Your task to perform on an android device: Add "razer kraken" to the cart on bestbuy.com, then select checkout. Image 0: 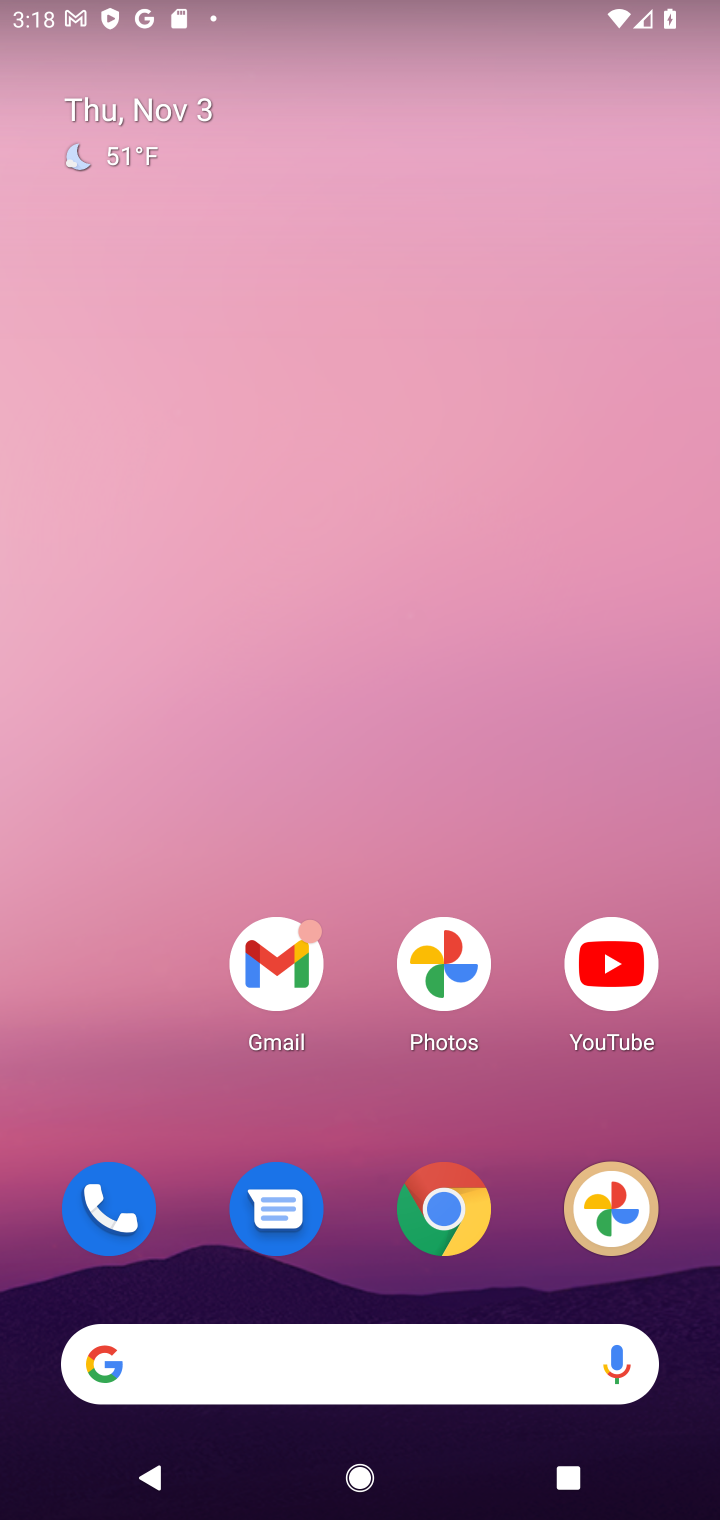
Step 0: click (461, 1220)
Your task to perform on an android device: Add "razer kraken" to the cart on bestbuy.com, then select checkout. Image 1: 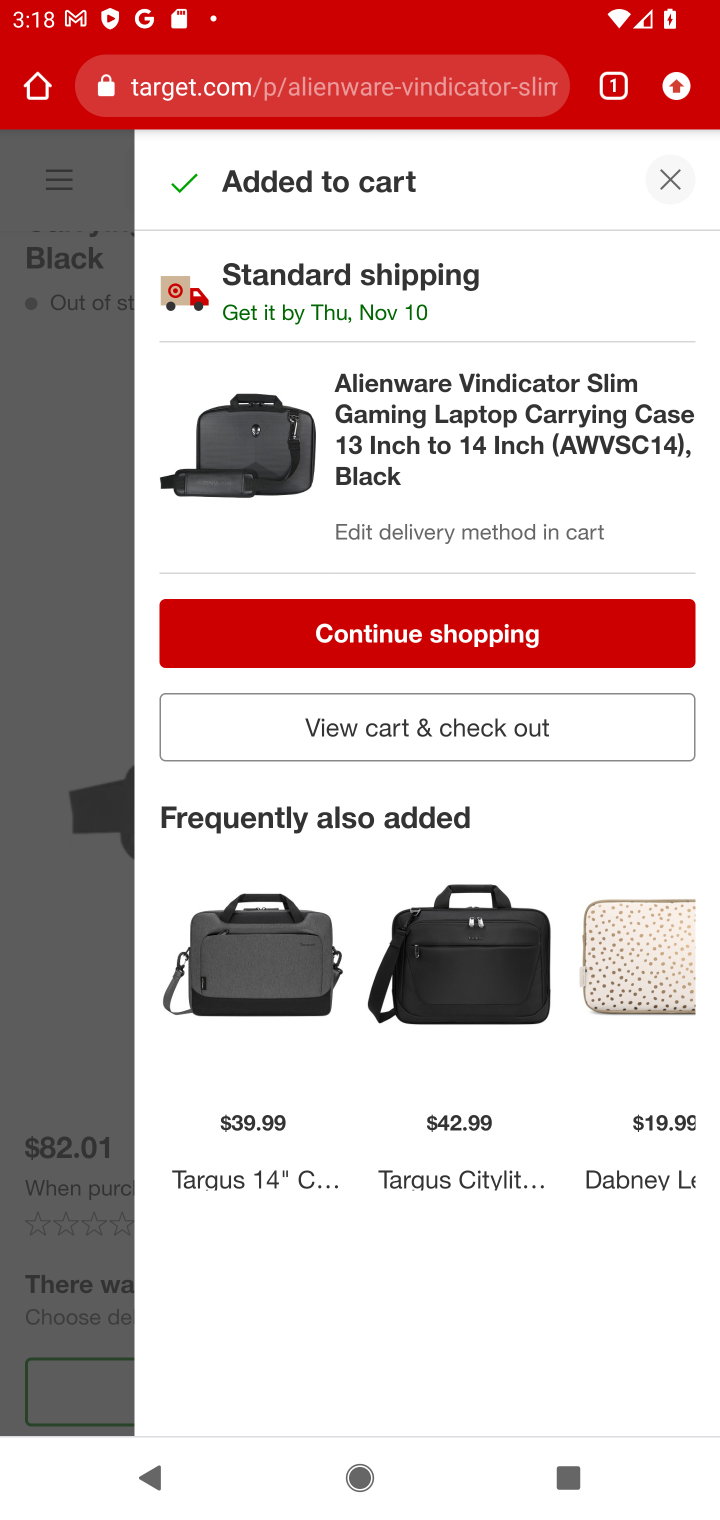
Step 1: click (281, 88)
Your task to perform on an android device: Add "razer kraken" to the cart on bestbuy.com, then select checkout. Image 2: 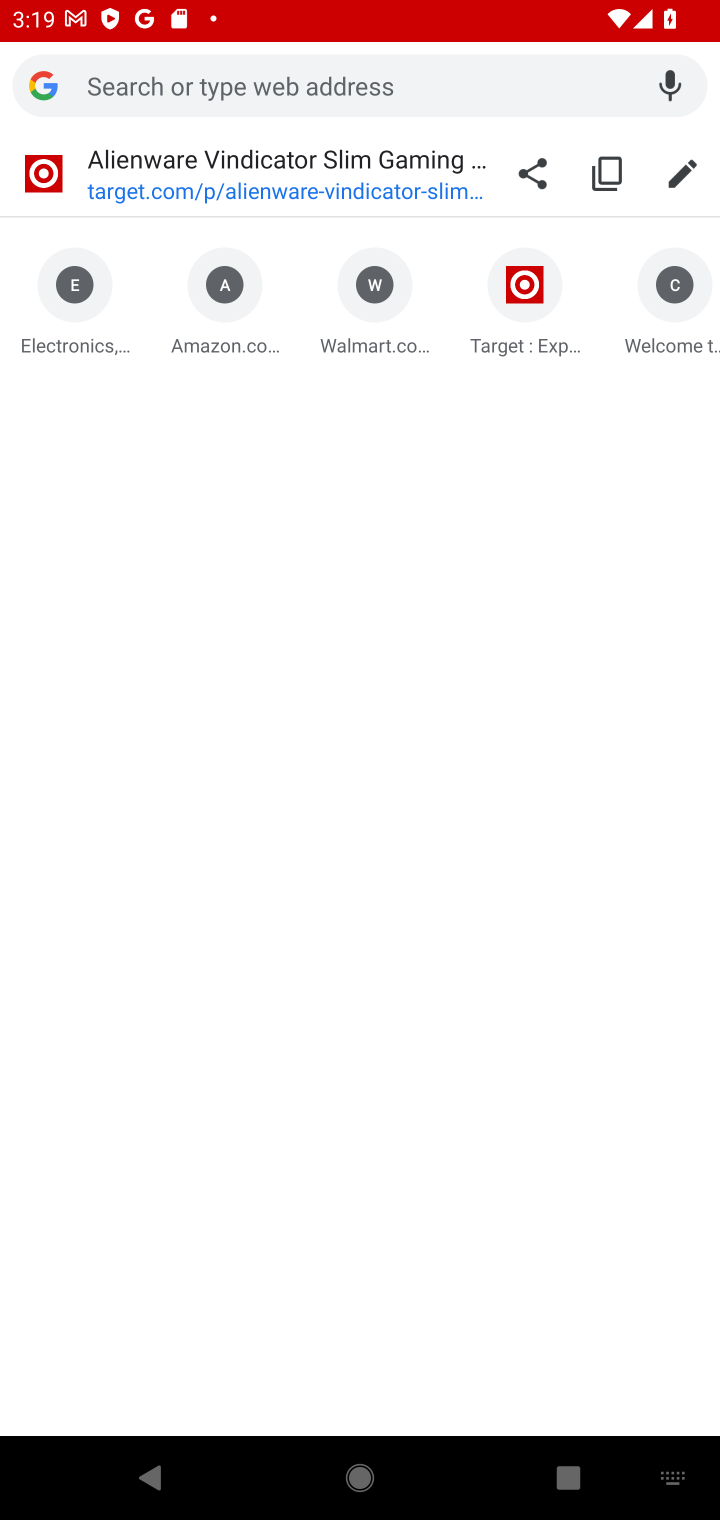
Step 2: type "bestbuy.com"
Your task to perform on an android device: Add "razer kraken" to the cart on bestbuy.com, then select checkout. Image 3: 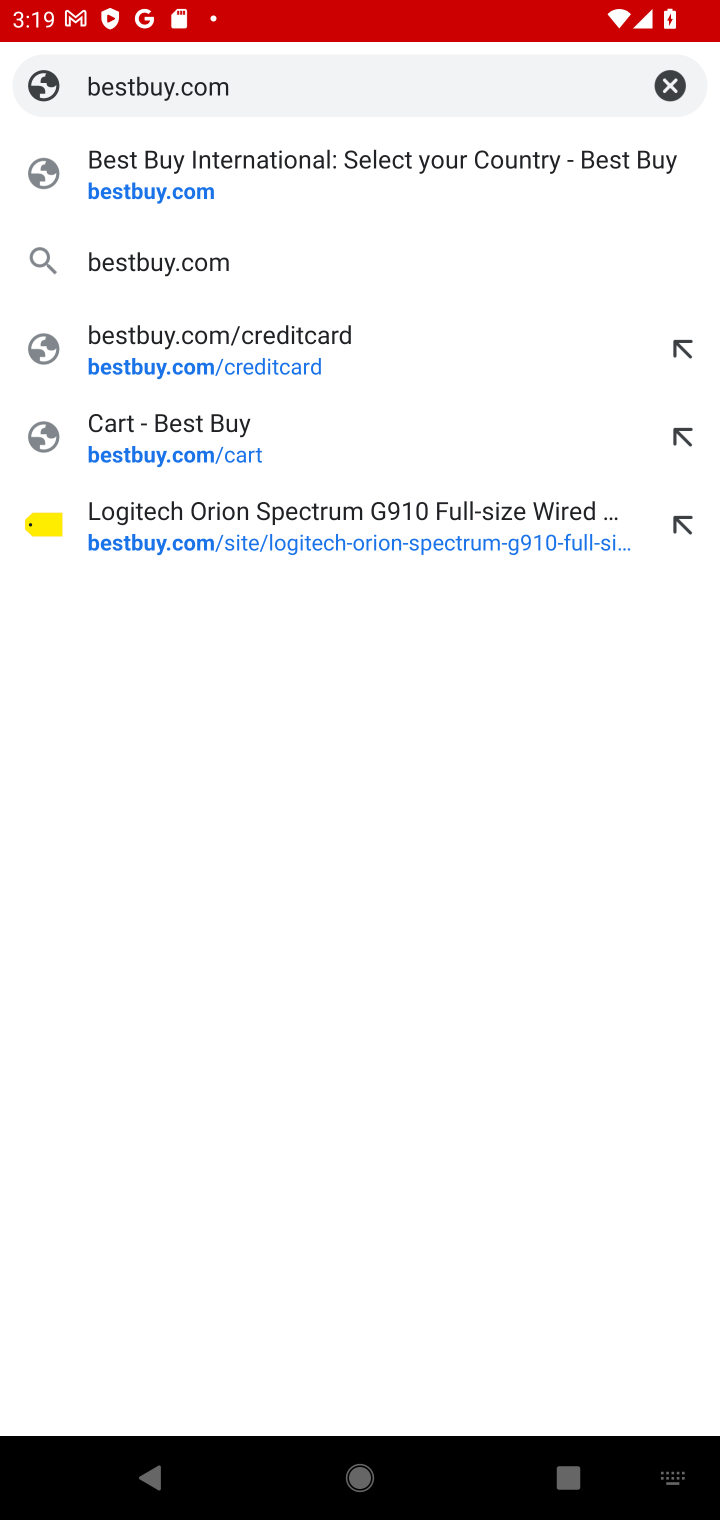
Step 3: click (210, 197)
Your task to perform on an android device: Add "razer kraken" to the cart on bestbuy.com, then select checkout. Image 4: 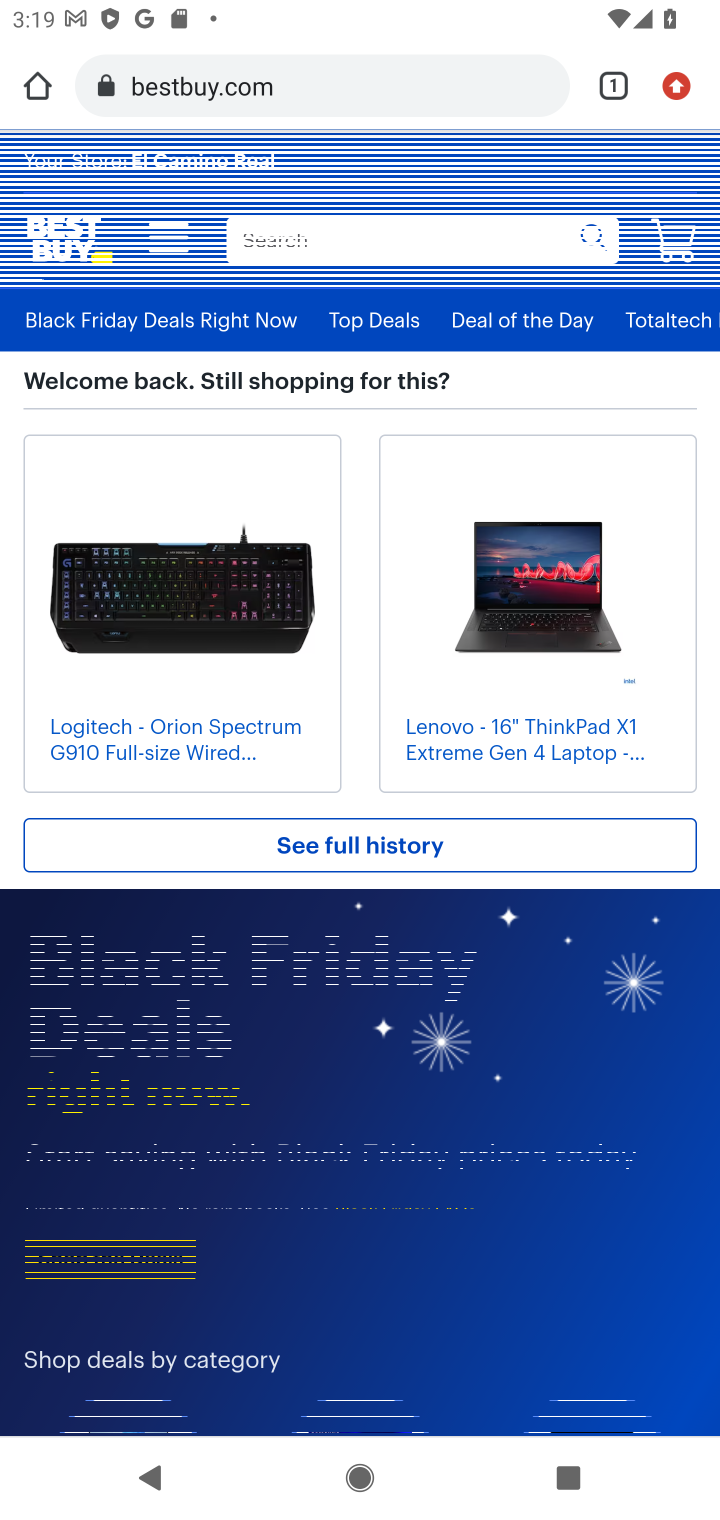
Step 4: click (305, 230)
Your task to perform on an android device: Add "razer kraken" to the cart on bestbuy.com, then select checkout. Image 5: 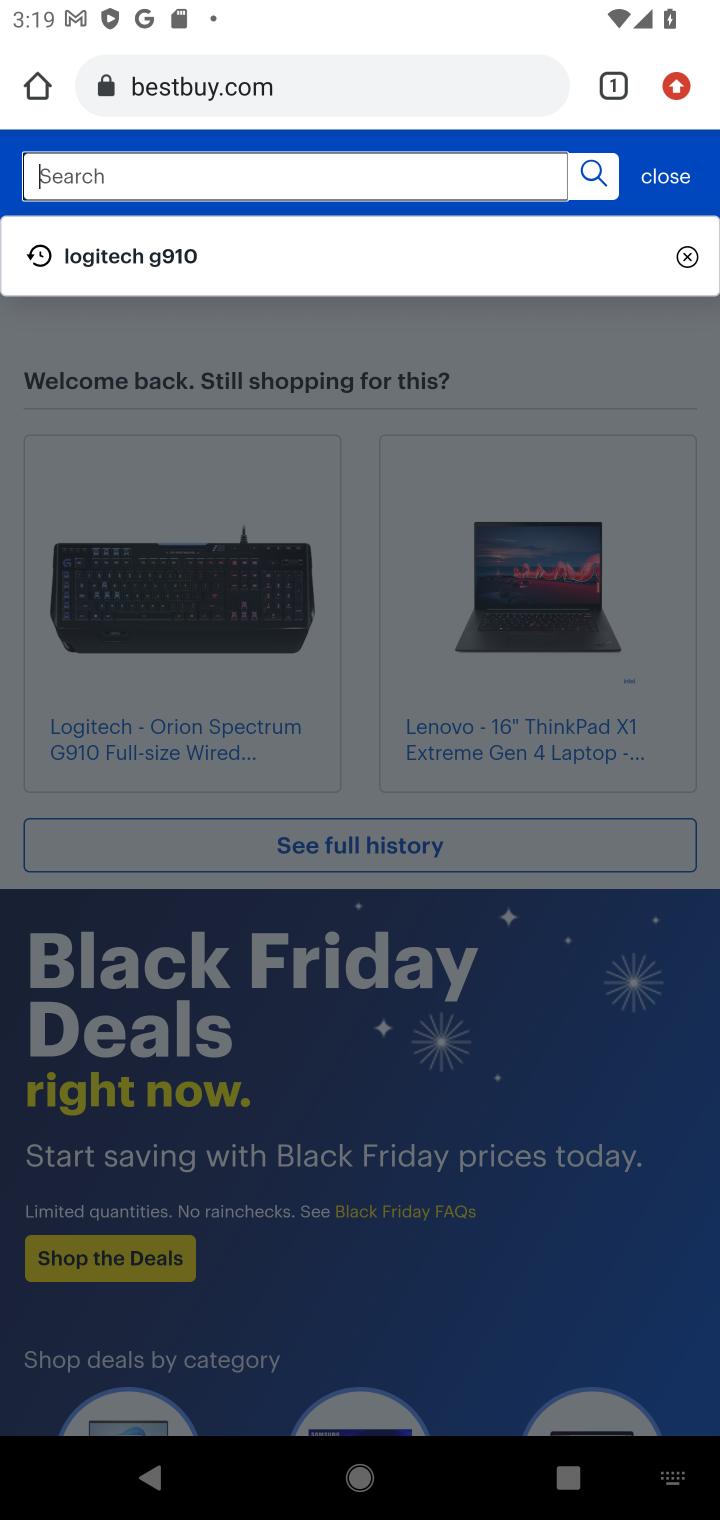
Step 5: type "razer kraken"
Your task to perform on an android device: Add "razer kraken" to the cart on bestbuy.com, then select checkout. Image 6: 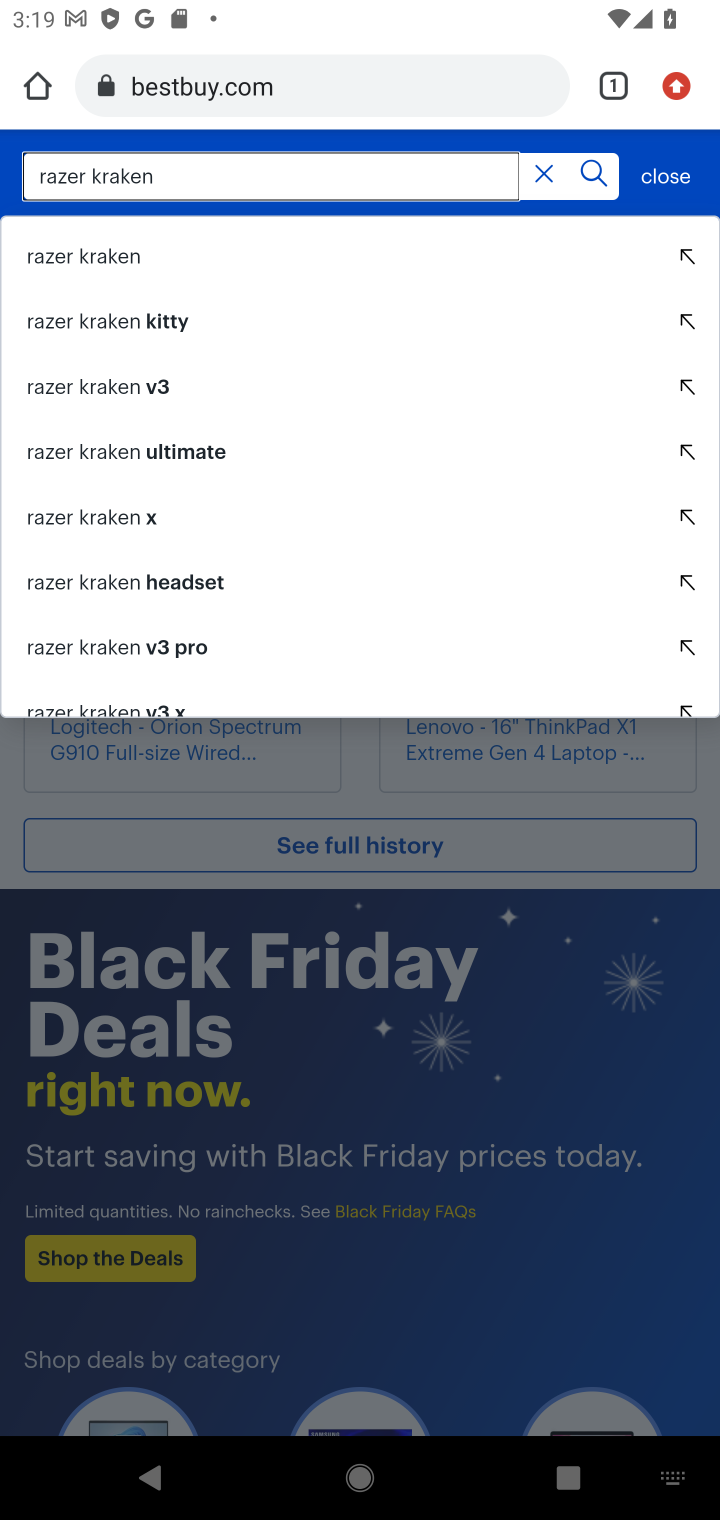
Step 6: press enter
Your task to perform on an android device: Add "razer kraken" to the cart on bestbuy.com, then select checkout. Image 7: 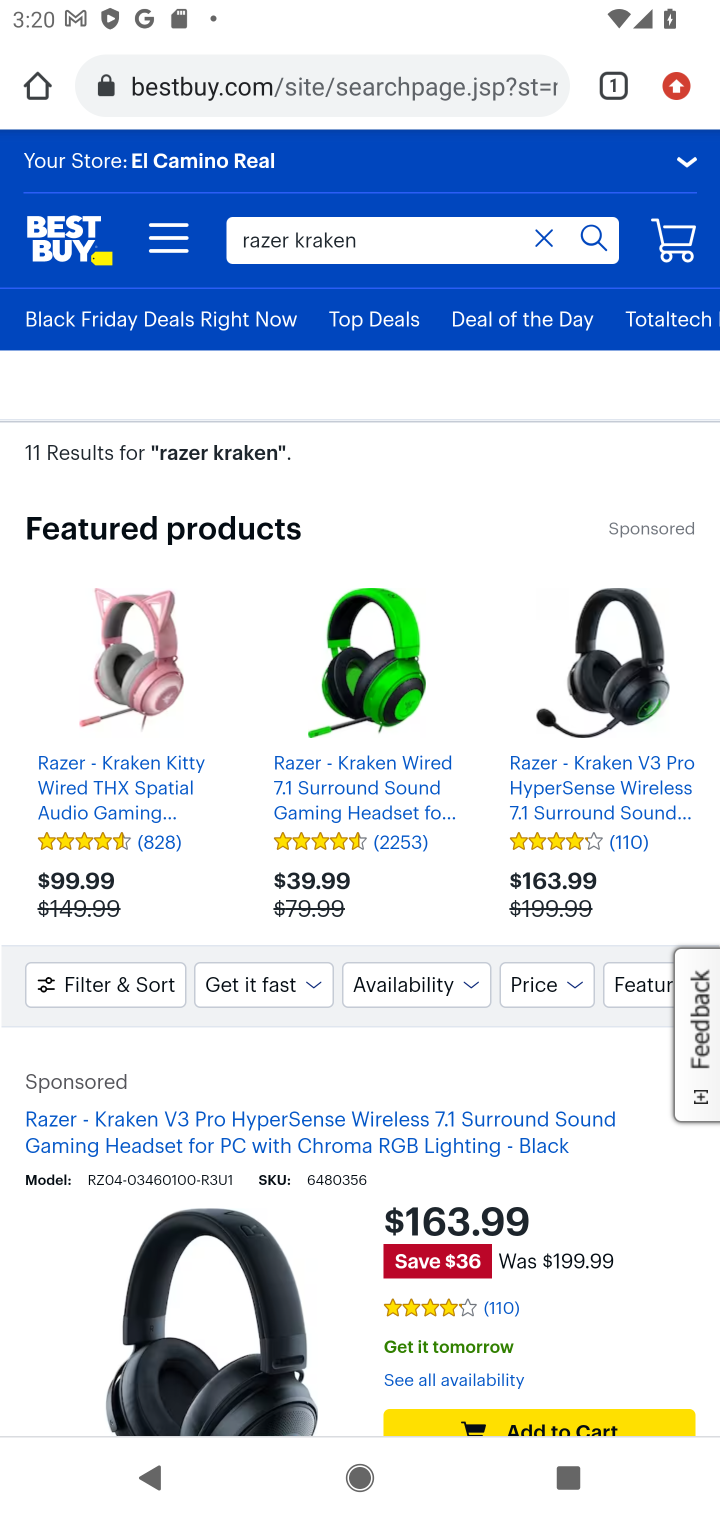
Step 7: click (219, 1276)
Your task to perform on an android device: Add "razer kraken" to the cart on bestbuy.com, then select checkout. Image 8: 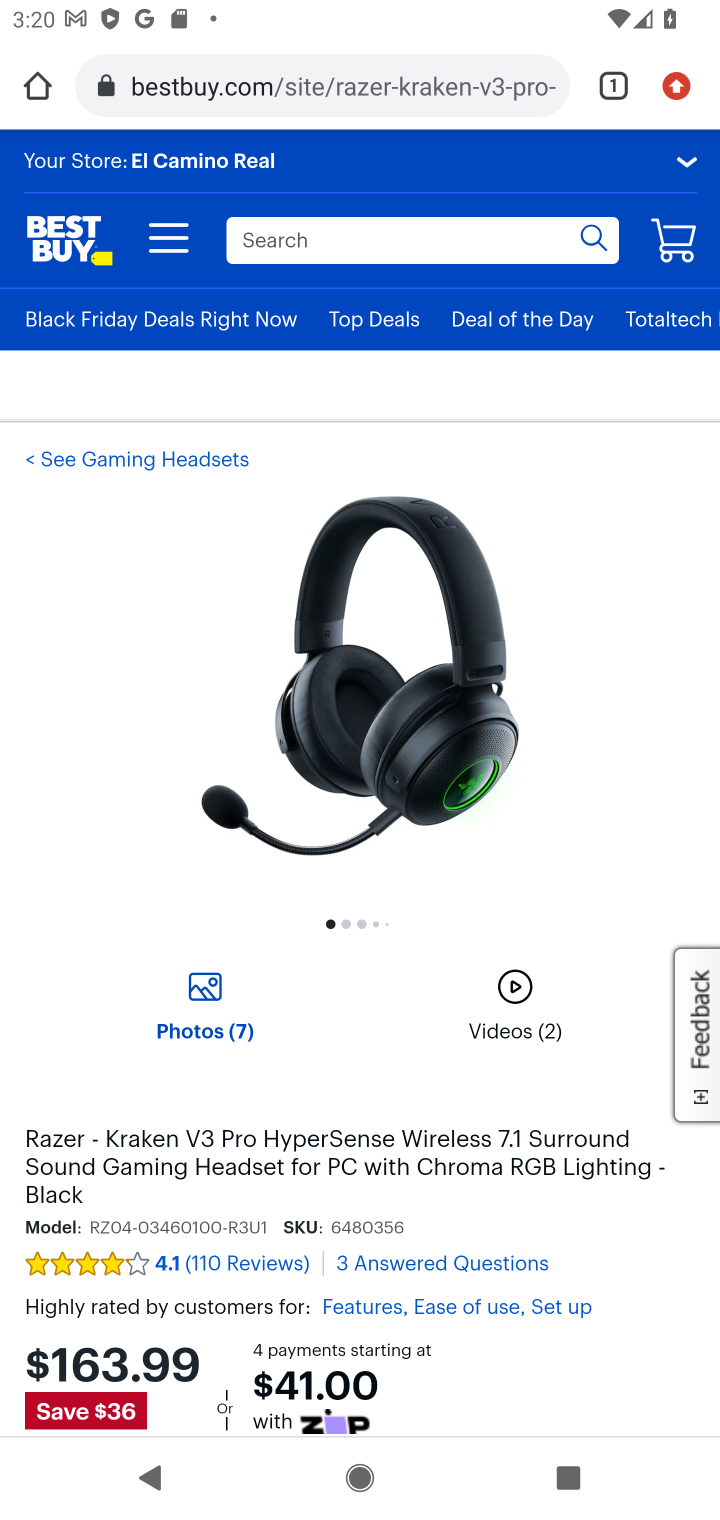
Step 8: drag from (418, 1301) to (343, 572)
Your task to perform on an android device: Add "razer kraken" to the cart on bestbuy.com, then select checkout. Image 9: 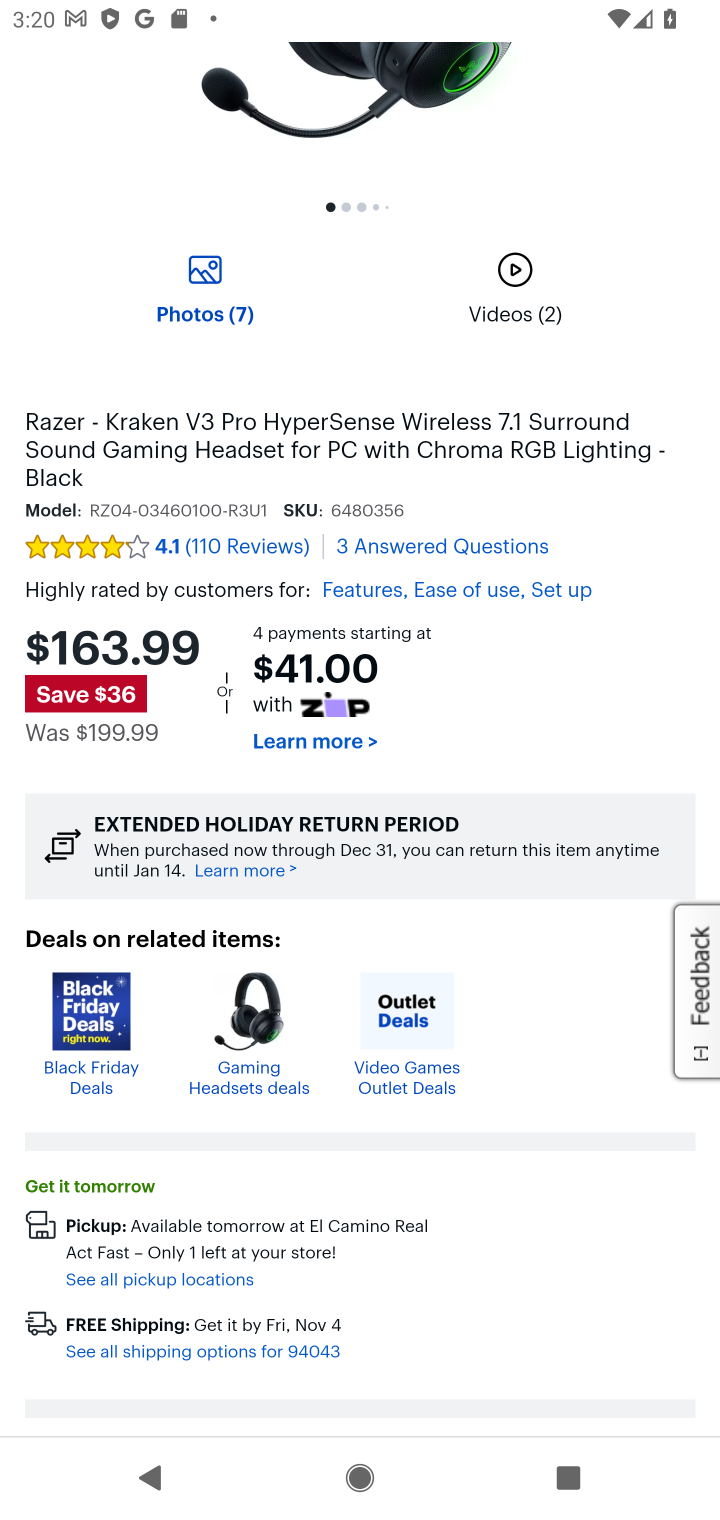
Step 9: drag from (401, 1235) to (416, 707)
Your task to perform on an android device: Add "razer kraken" to the cart on bestbuy.com, then select checkout. Image 10: 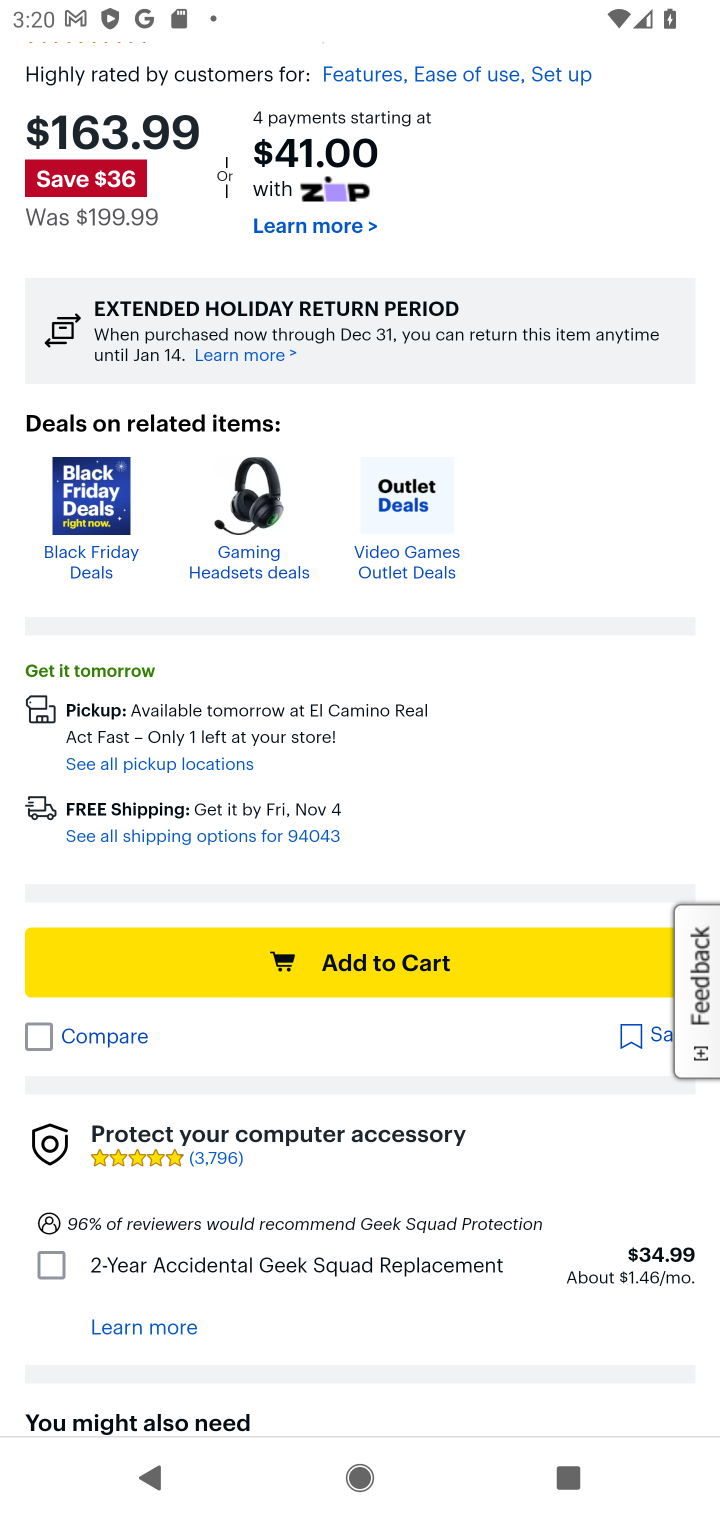
Step 10: click (462, 975)
Your task to perform on an android device: Add "razer kraken" to the cart on bestbuy.com, then select checkout. Image 11: 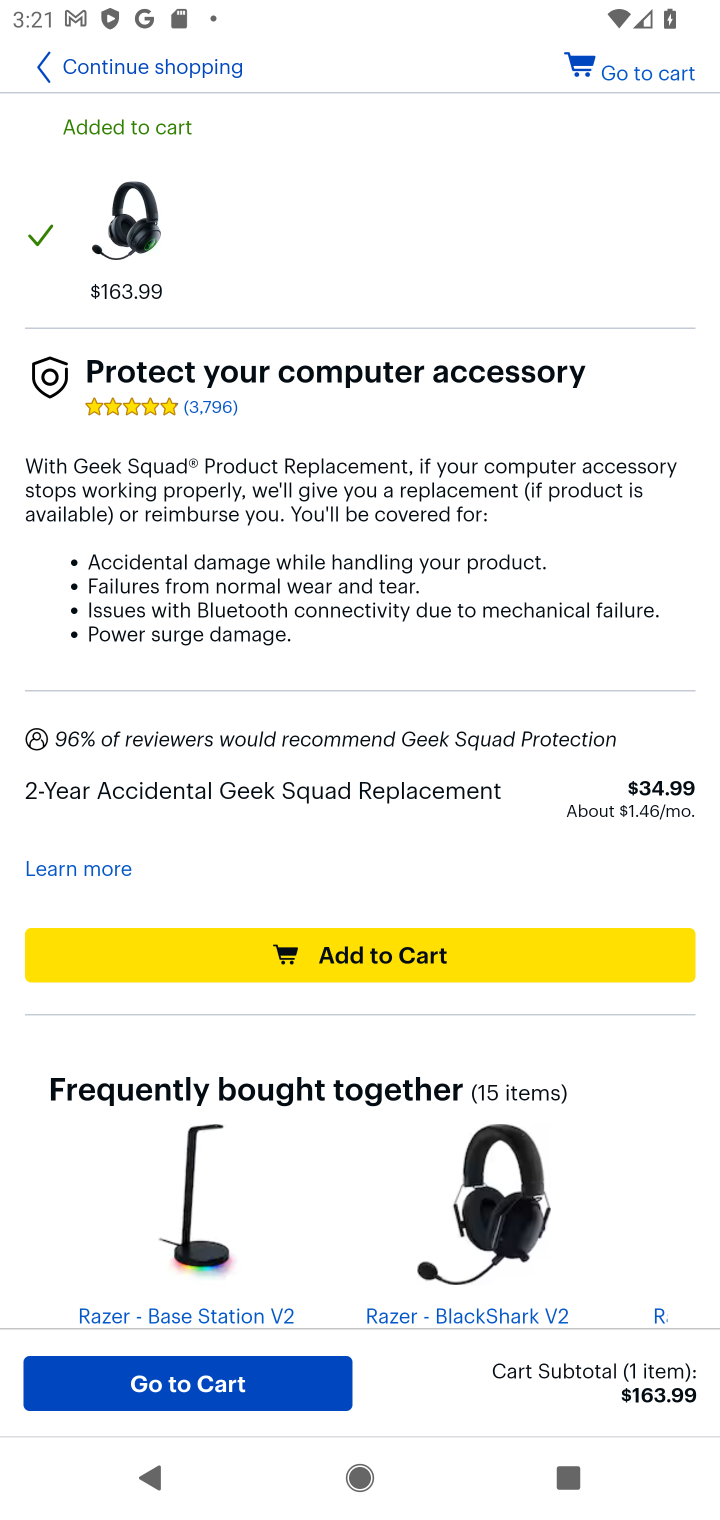
Step 11: drag from (629, 194) to (529, 1103)
Your task to perform on an android device: Add "razer kraken" to the cart on bestbuy.com, then select checkout. Image 12: 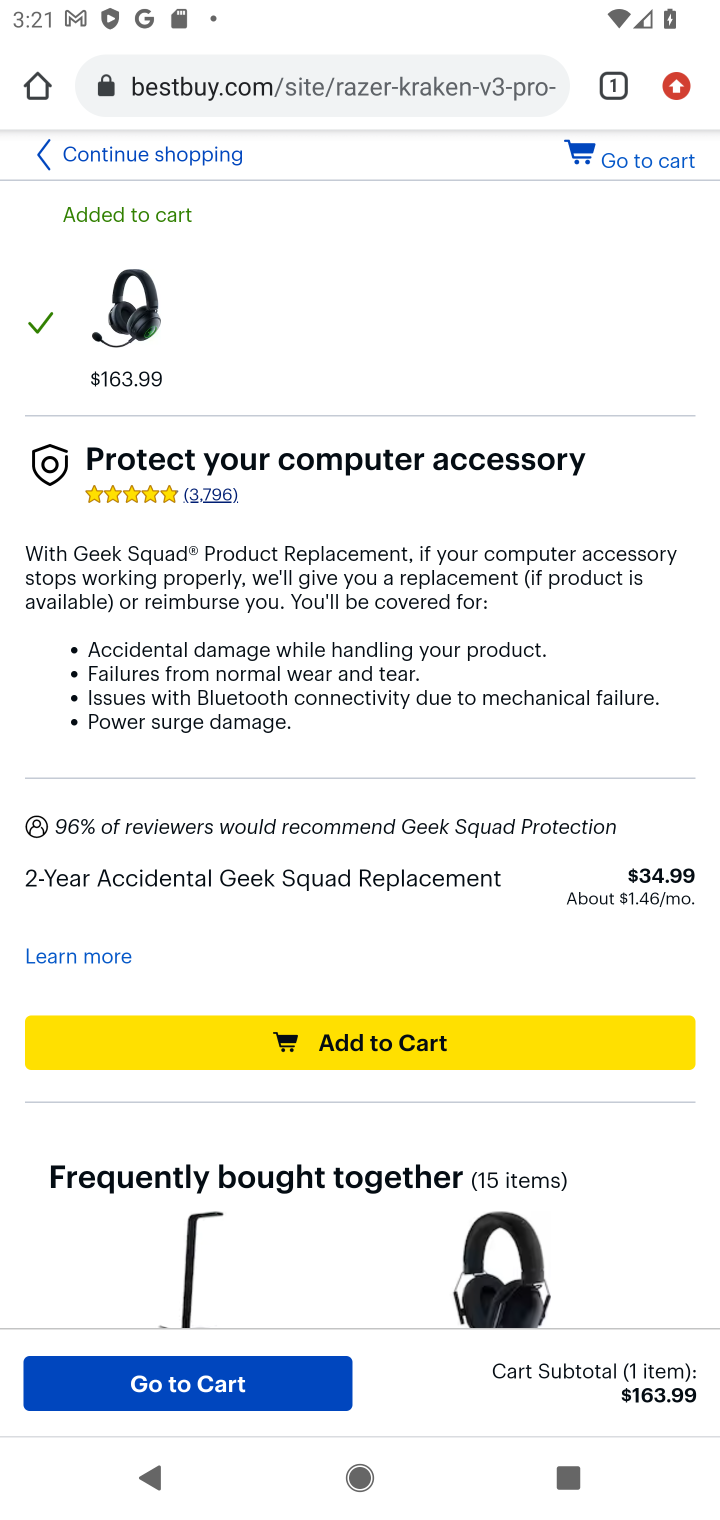
Step 12: click (634, 163)
Your task to perform on an android device: Add "razer kraken" to the cart on bestbuy.com, then select checkout. Image 13: 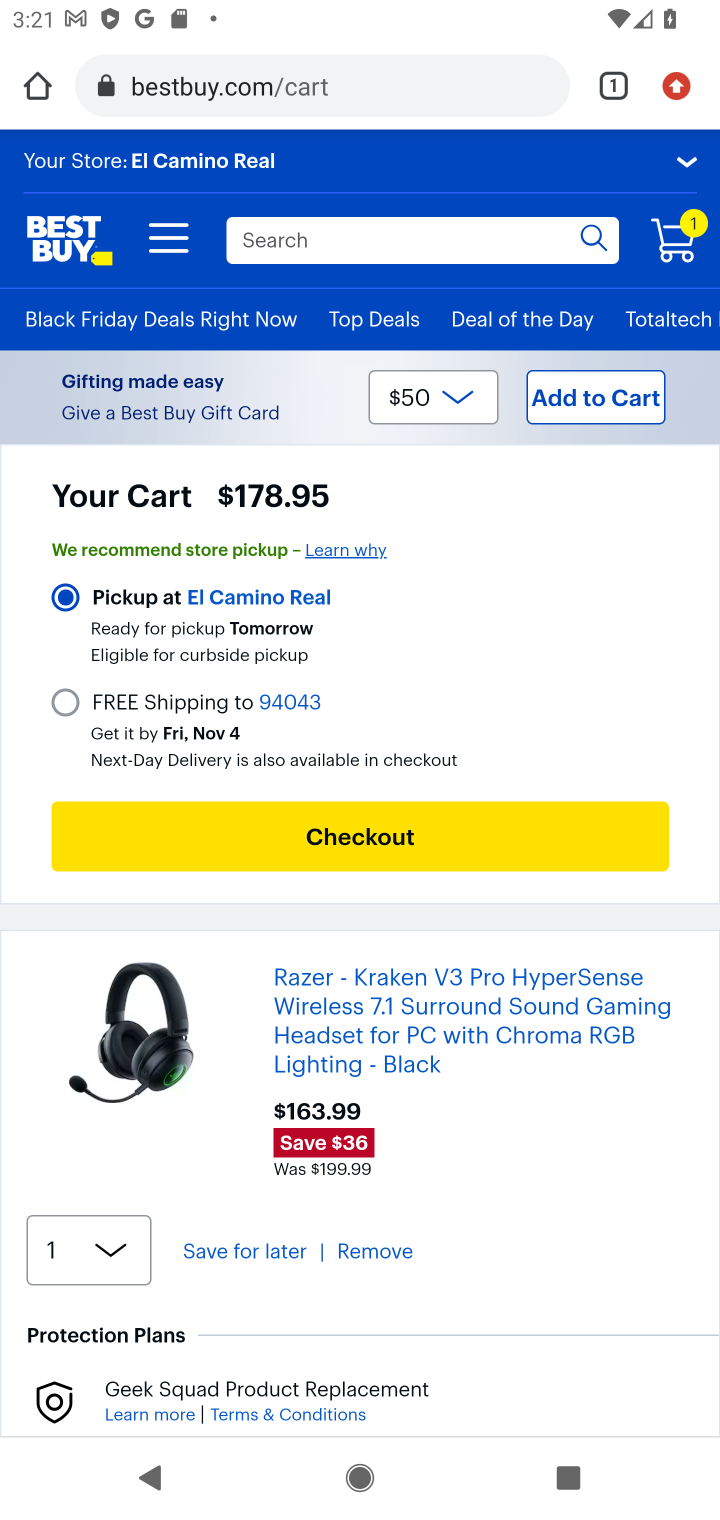
Step 13: click (498, 866)
Your task to perform on an android device: Add "razer kraken" to the cart on bestbuy.com, then select checkout. Image 14: 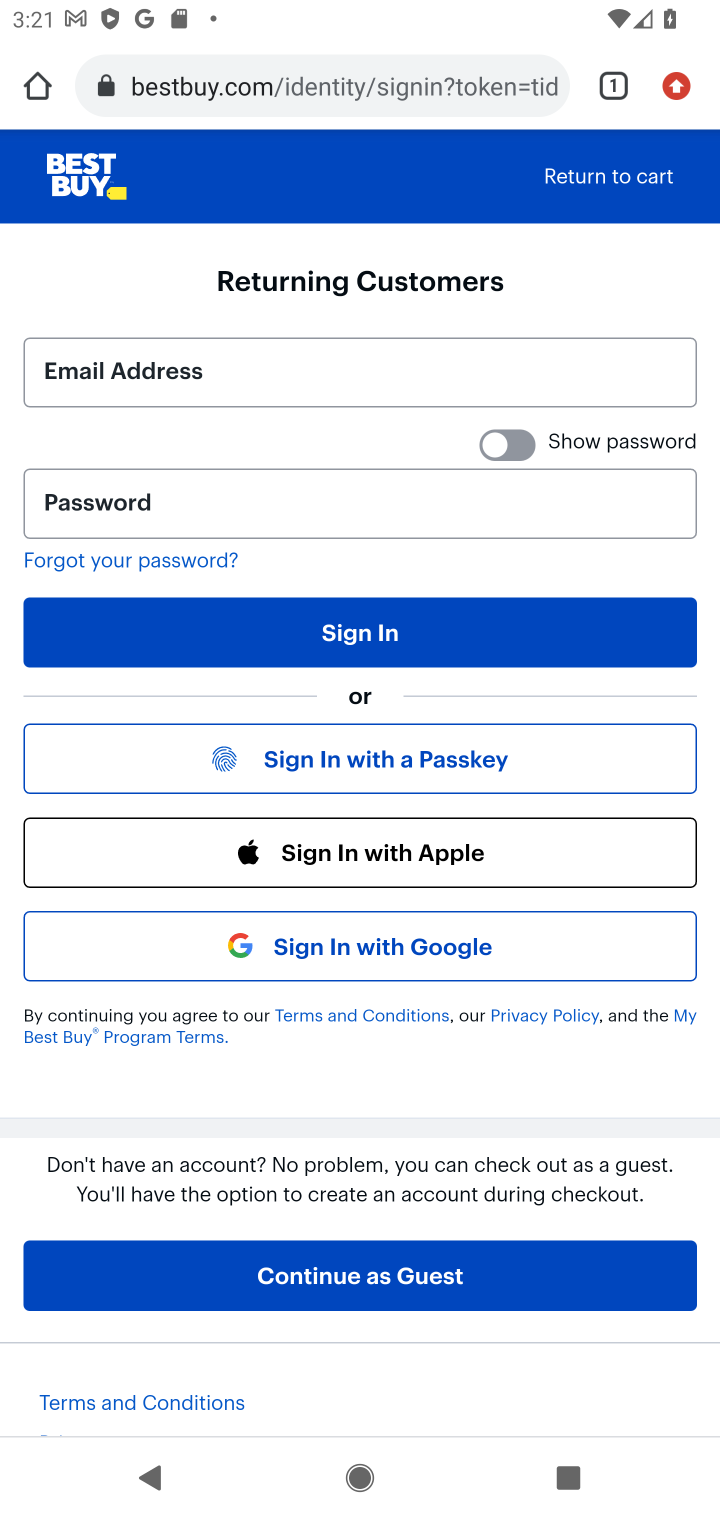
Step 14: task complete